Your task to perform on an android device: Open sound settings Image 0: 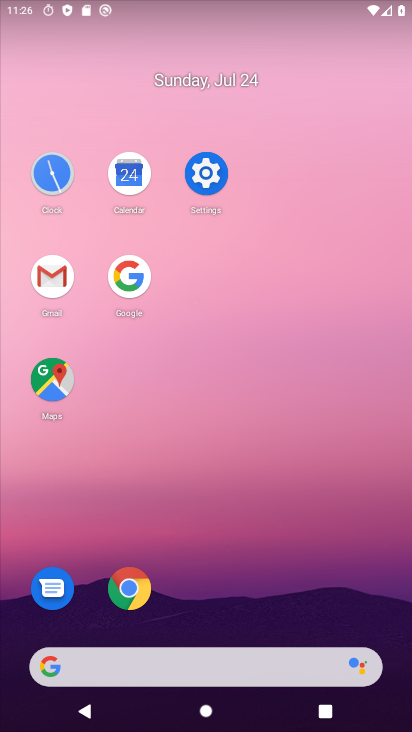
Step 0: click (208, 180)
Your task to perform on an android device: Open sound settings Image 1: 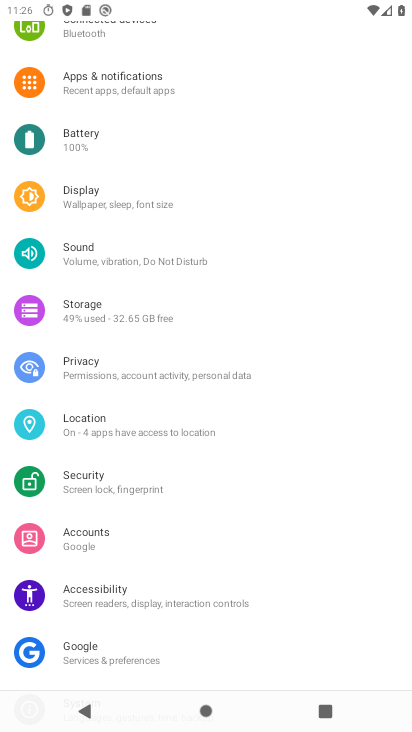
Step 1: click (151, 261)
Your task to perform on an android device: Open sound settings Image 2: 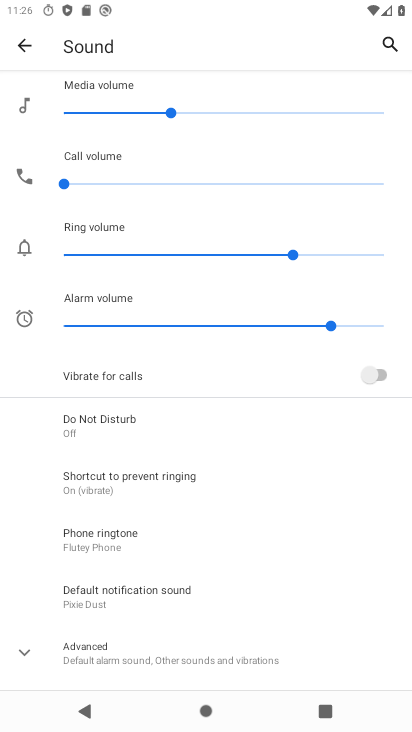
Step 2: task complete